Your task to perform on an android device: Open Google Chrome Image 0: 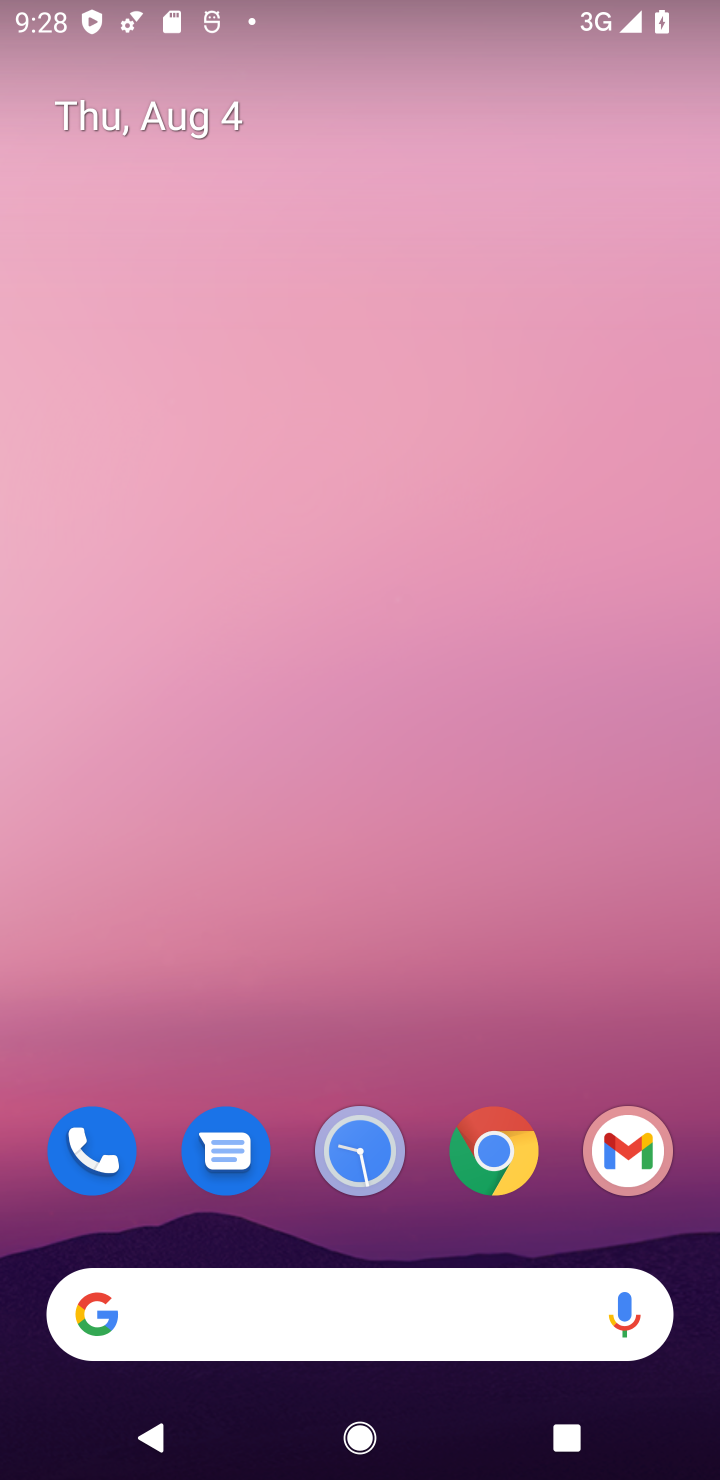
Step 0: click (491, 1137)
Your task to perform on an android device: Open Google Chrome Image 1: 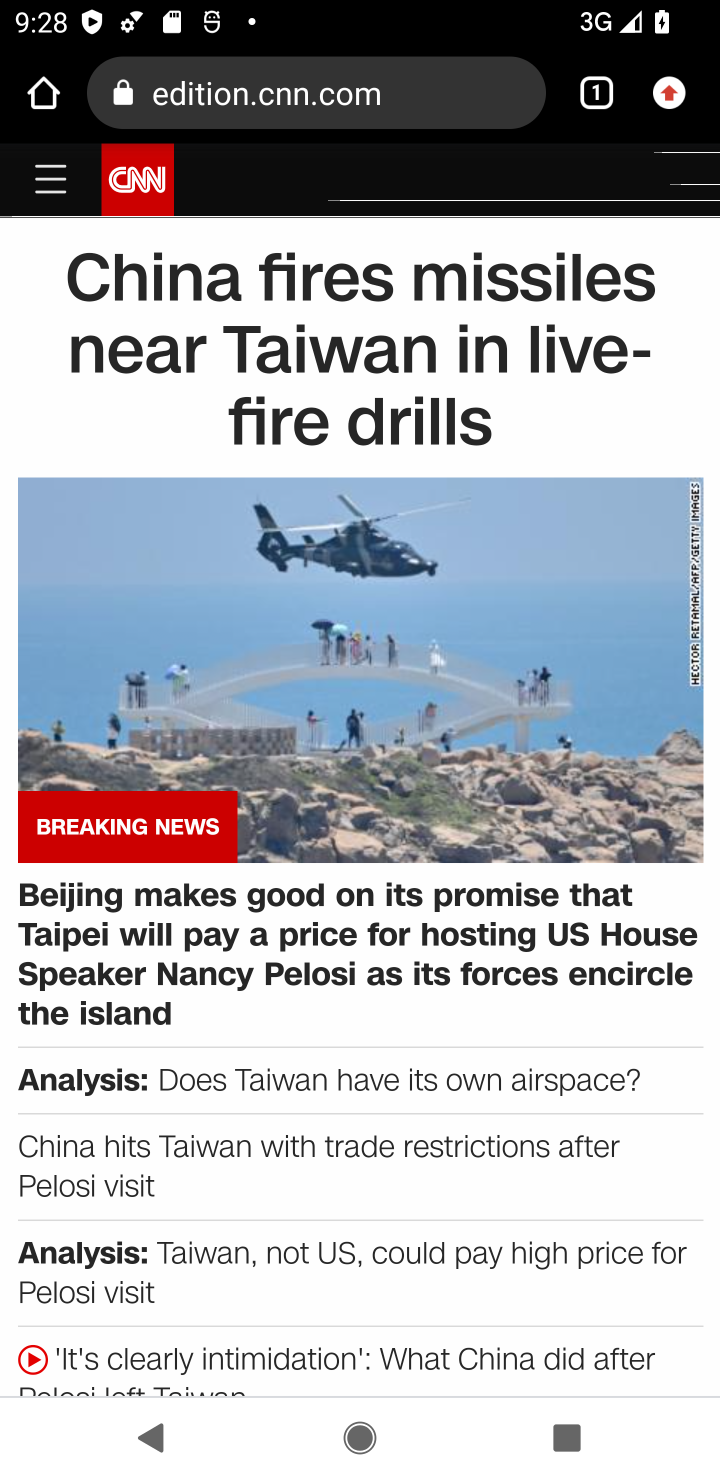
Step 1: task complete